Your task to perform on an android device: all mails in gmail Image 0: 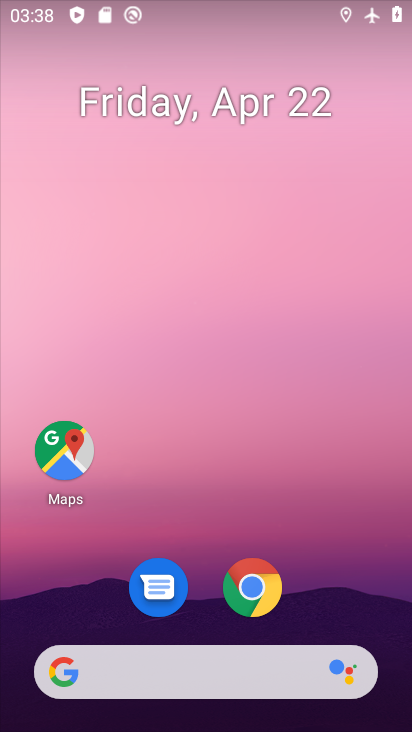
Step 0: drag from (340, 560) to (289, 93)
Your task to perform on an android device: all mails in gmail Image 1: 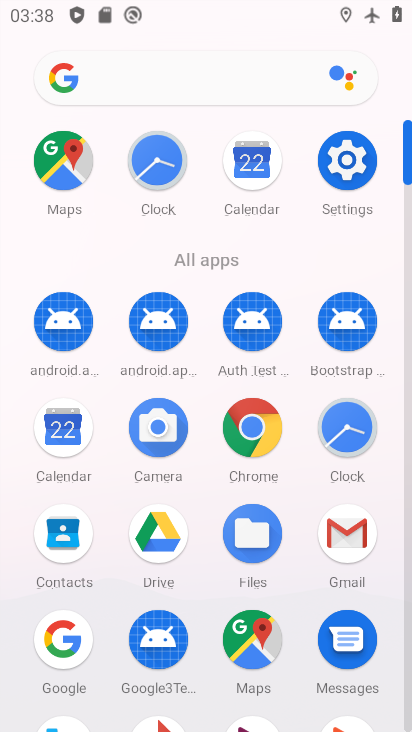
Step 1: drag from (220, 484) to (212, 175)
Your task to perform on an android device: all mails in gmail Image 2: 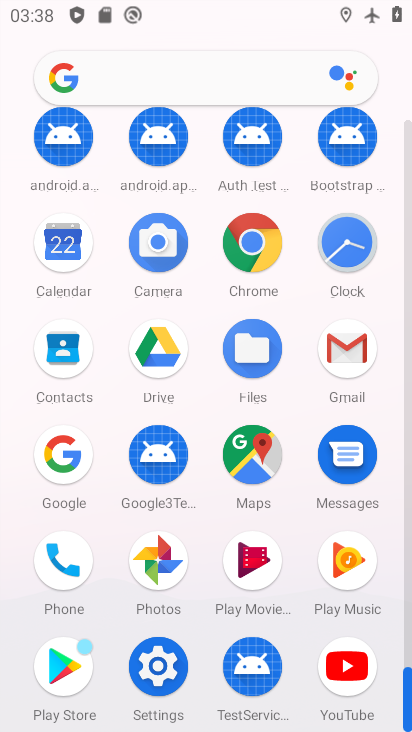
Step 2: click (343, 353)
Your task to perform on an android device: all mails in gmail Image 3: 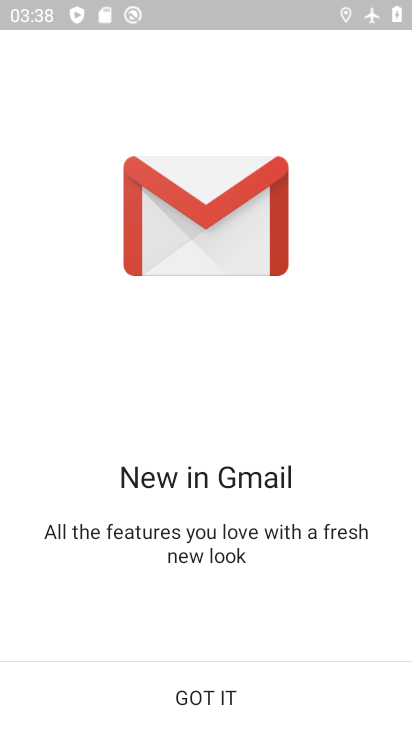
Step 3: click (229, 706)
Your task to perform on an android device: all mails in gmail Image 4: 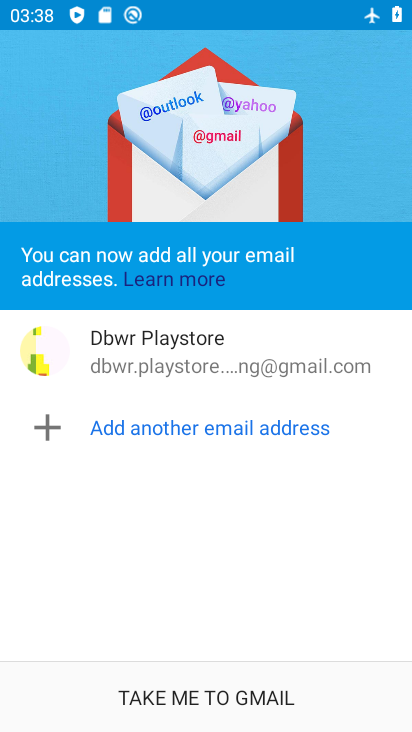
Step 4: click (232, 700)
Your task to perform on an android device: all mails in gmail Image 5: 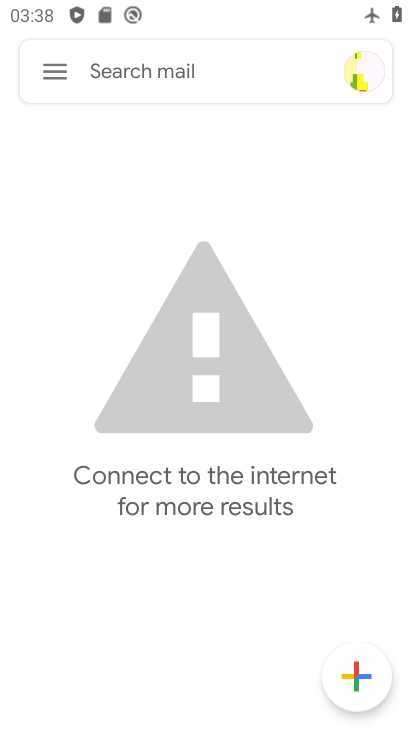
Step 5: click (58, 78)
Your task to perform on an android device: all mails in gmail Image 6: 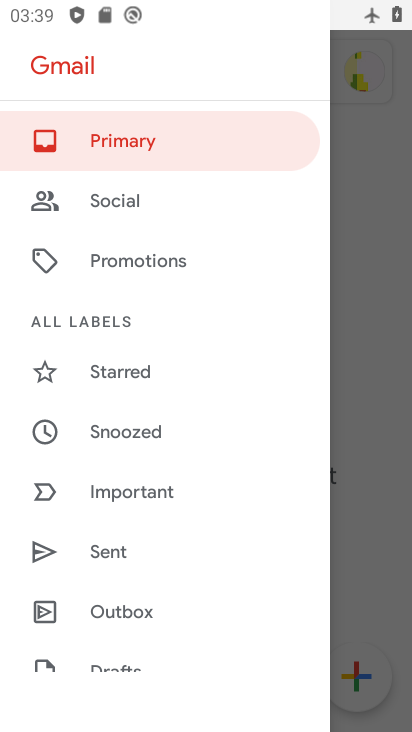
Step 6: drag from (154, 533) to (198, 382)
Your task to perform on an android device: all mails in gmail Image 7: 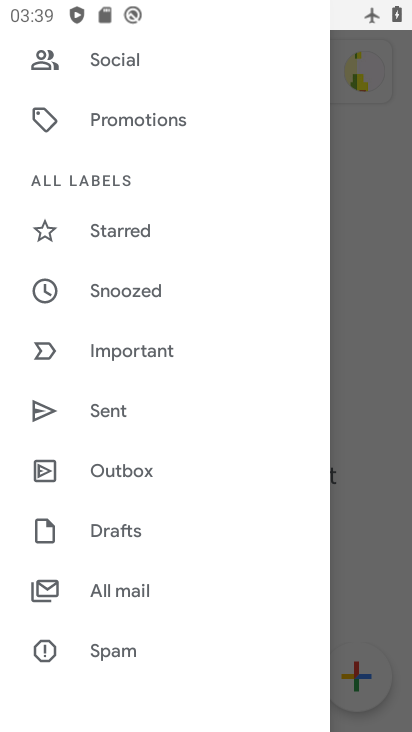
Step 7: click (125, 584)
Your task to perform on an android device: all mails in gmail Image 8: 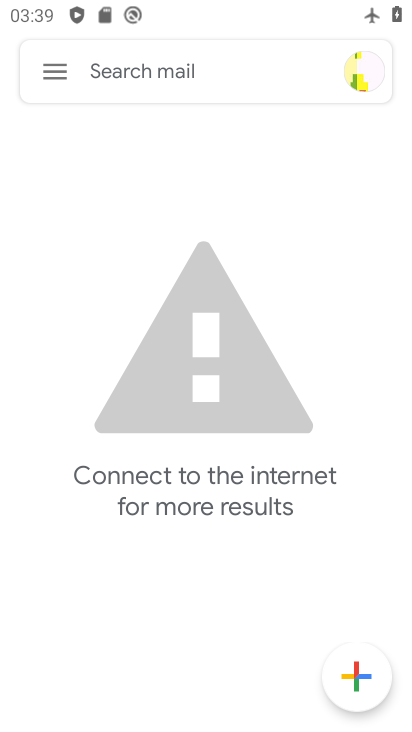
Step 8: task complete